Your task to perform on an android device: move an email to a new category in the gmail app Image 0: 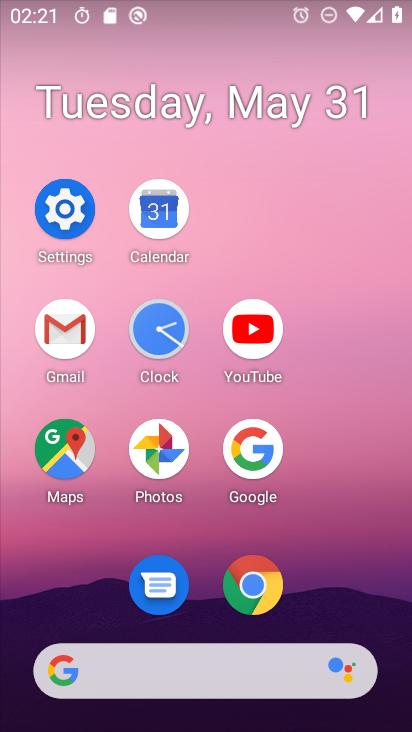
Step 0: click (67, 340)
Your task to perform on an android device: move an email to a new category in the gmail app Image 1: 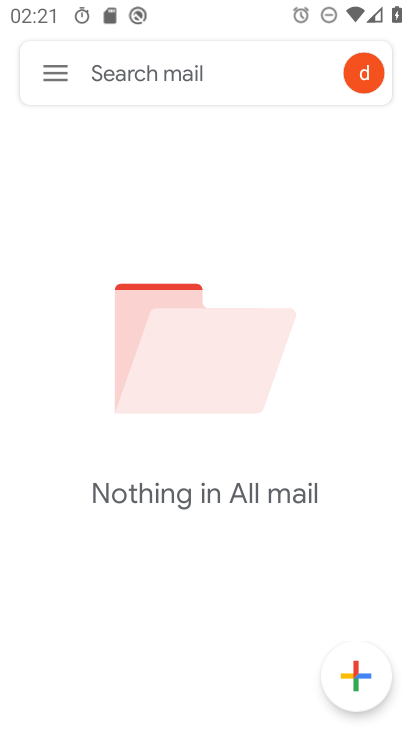
Step 1: click (51, 88)
Your task to perform on an android device: move an email to a new category in the gmail app Image 2: 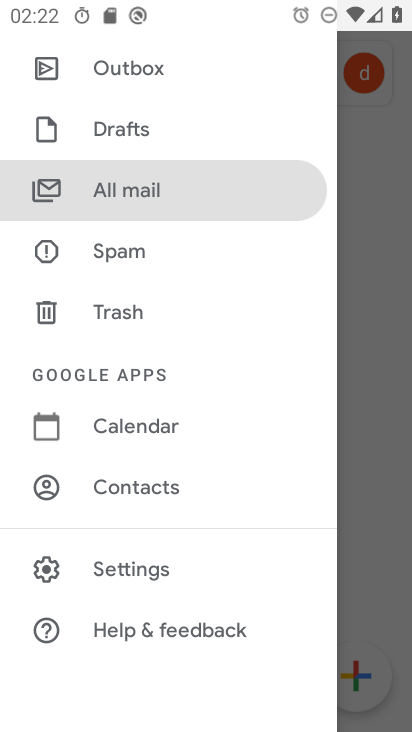
Step 2: click (182, 201)
Your task to perform on an android device: move an email to a new category in the gmail app Image 3: 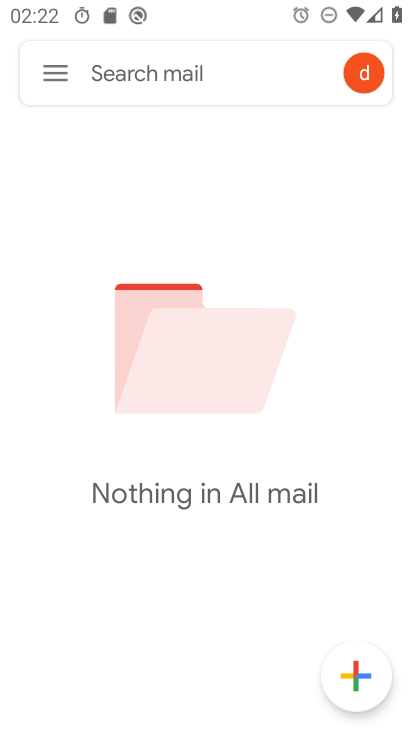
Step 3: task complete